Your task to perform on an android device: stop showing notifications on the lock screen Image 0: 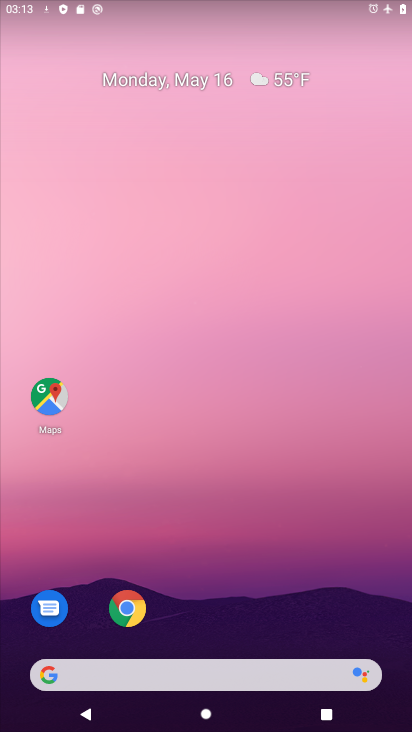
Step 0: drag from (224, 601) to (266, 123)
Your task to perform on an android device: stop showing notifications on the lock screen Image 1: 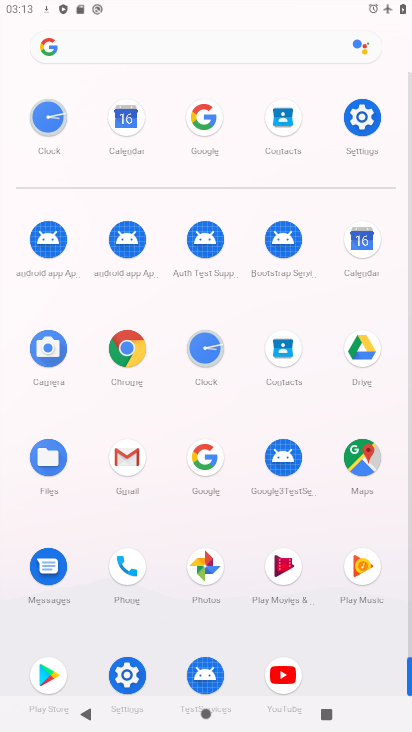
Step 1: click (345, 128)
Your task to perform on an android device: stop showing notifications on the lock screen Image 2: 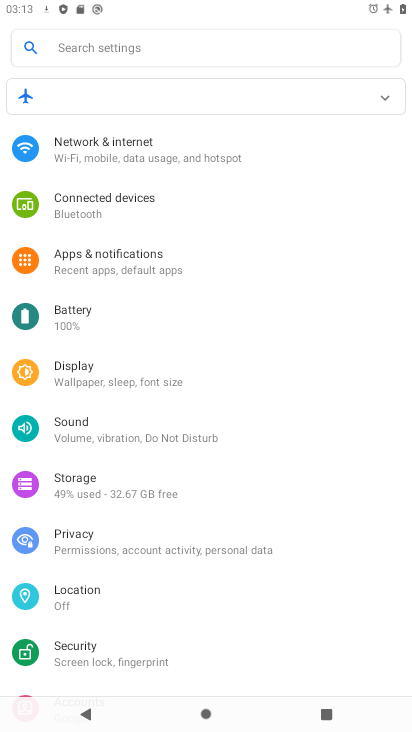
Step 2: drag from (163, 539) to (173, 419)
Your task to perform on an android device: stop showing notifications on the lock screen Image 3: 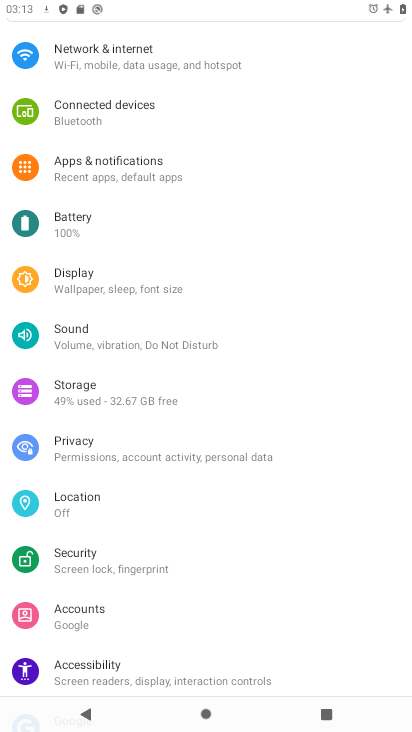
Step 3: click (151, 158)
Your task to perform on an android device: stop showing notifications on the lock screen Image 4: 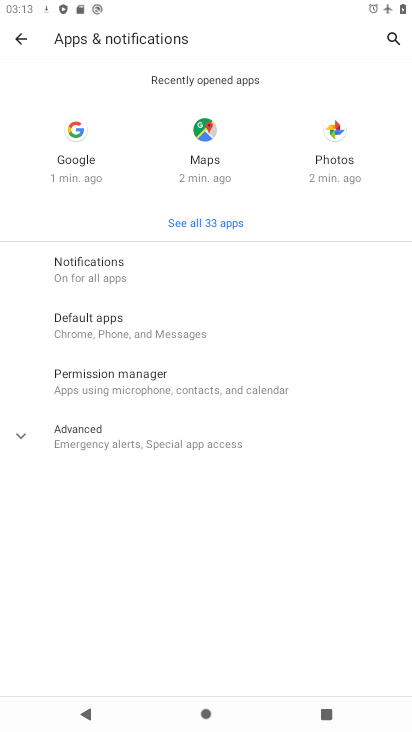
Step 4: click (173, 269)
Your task to perform on an android device: stop showing notifications on the lock screen Image 5: 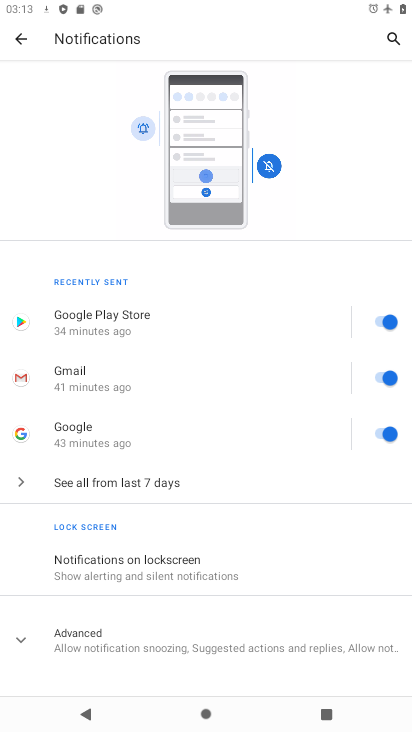
Step 5: click (277, 564)
Your task to perform on an android device: stop showing notifications on the lock screen Image 6: 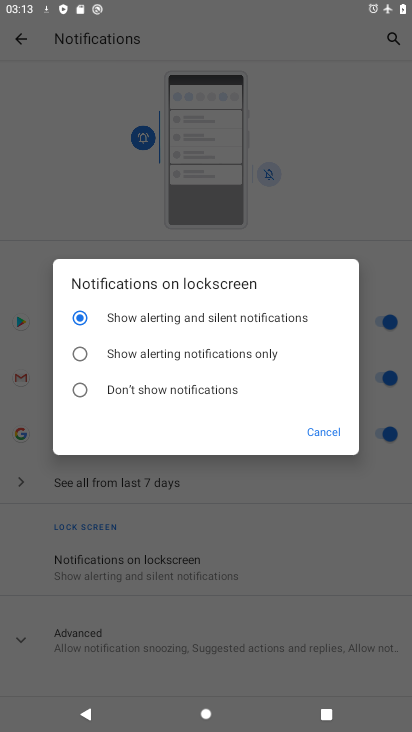
Step 6: click (131, 395)
Your task to perform on an android device: stop showing notifications on the lock screen Image 7: 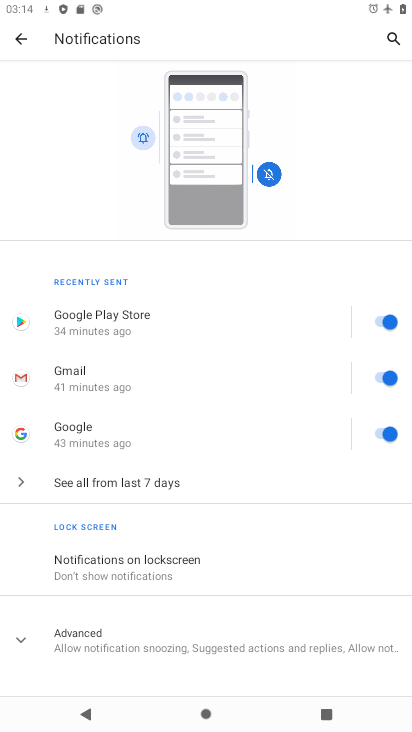
Step 7: task complete